Your task to perform on an android device: Open calendar and show me the second week of next month Image 0: 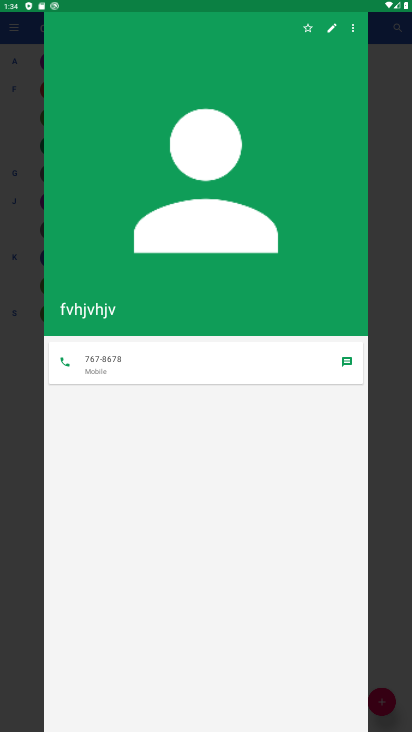
Step 0: press home button
Your task to perform on an android device: Open calendar and show me the second week of next month Image 1: 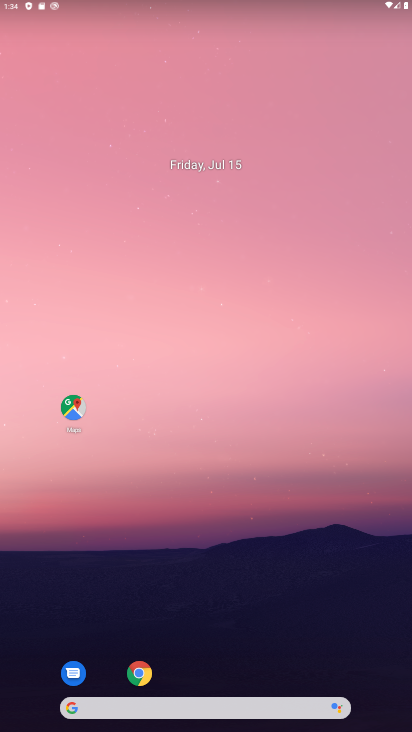
Step 1: drag from (268, 577) to (300, 233)
Your task to perform on an android device: Open calendar and show me the second week of next month Image 2: 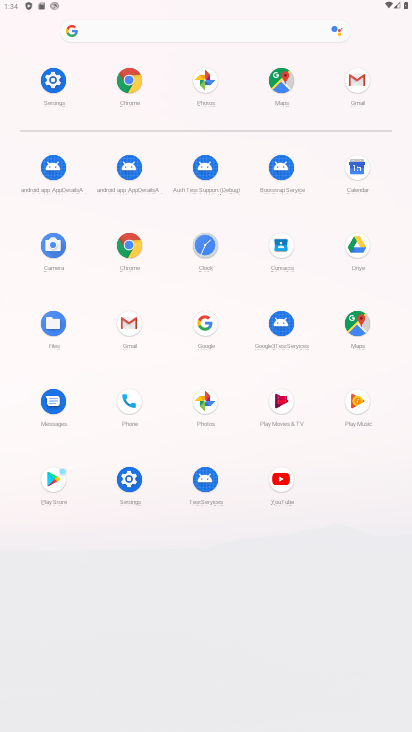
Step 2: click (354, 169)
Your task to perform on an android device: Open calendar and show me the second week of next month Image 3: 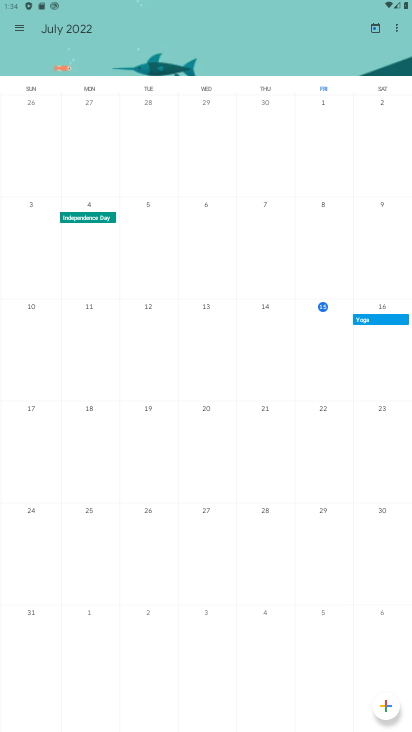
Step 3: drag from (330, 234) to (42, 172)
Your task to perform on an android device: Open calendar and show me the second week of next month Image 4: 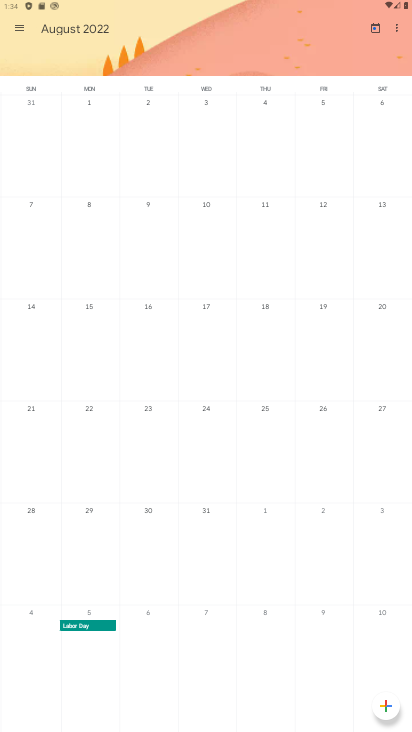
Step 4: click (26, 303)
Your task to perform on an android device: Open calendar and show me the second week of next month Image 5: 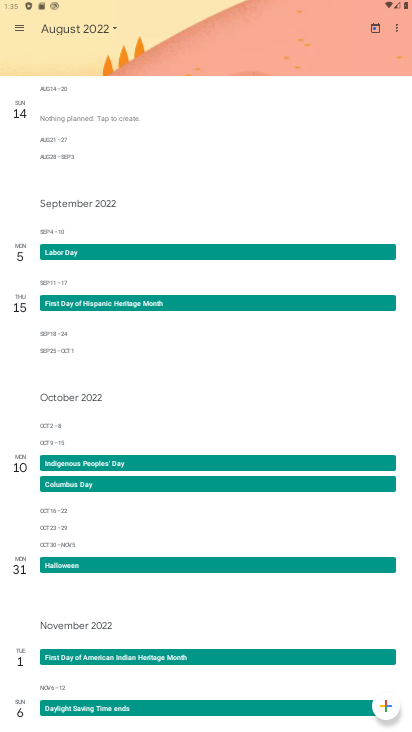
Step 5: task complete